Your task to perform on an android device: turn on showing notifications on the lock screen Image 0: 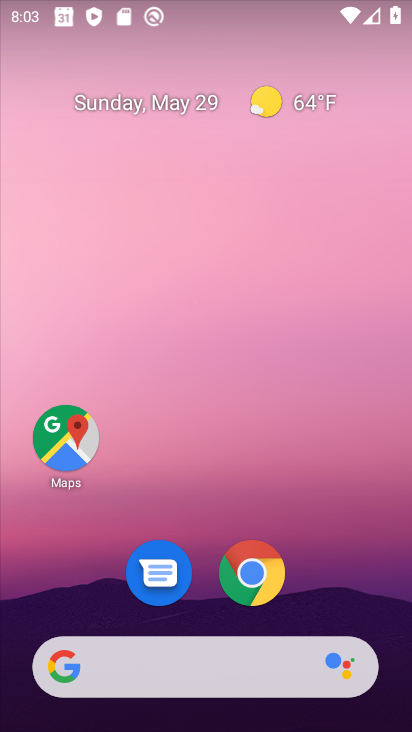
Step 0: drag from (50, 617) to (245, 71)
Your task to perform on an android device: turn on showing notifications on the lock screen Image 1: 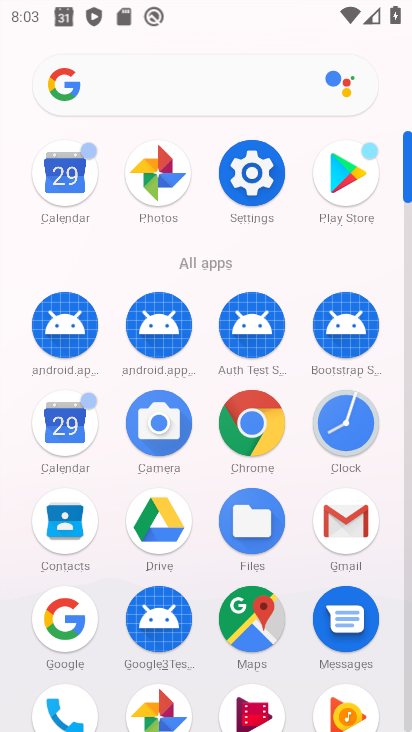
Step 1: drag from (130, 632) to (307, 218)
Your task to perform on an android device: turn on showing notifications on the lock screen Image 2: 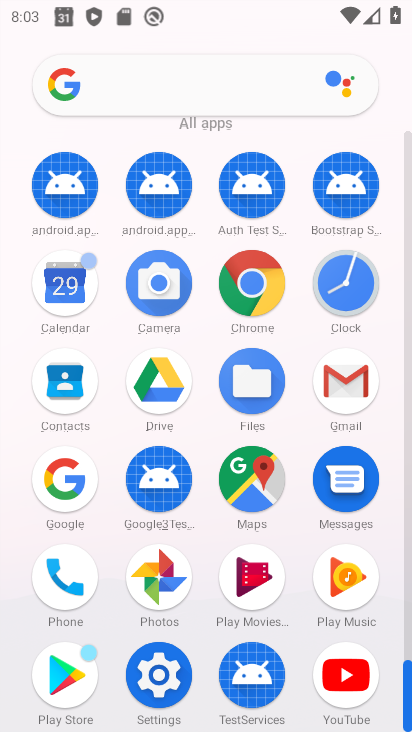
Step 2: click (159, 676)
Your task to perform on an android device: turn on showing notifications on the lock screen Image 3: 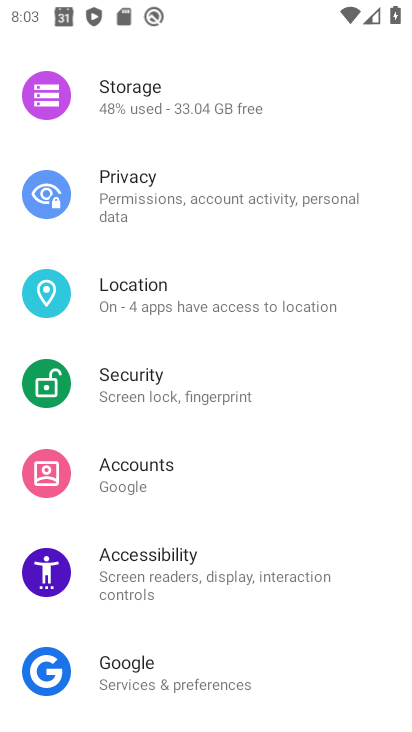
Step 3: drag from (199, 231) to (171, 726)
Your task to perform on an android device: turn on showing notifications on the lock screen Image 4: 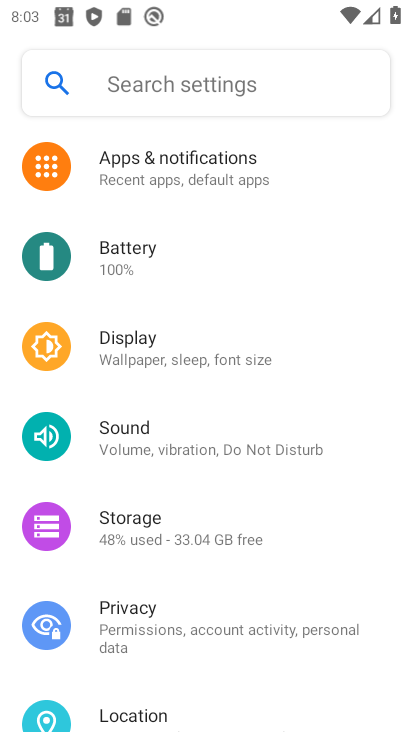
Step 4: click (244, 178)
Your task to perform on an android device: turn on showing notifications on the lock screen Image 5: 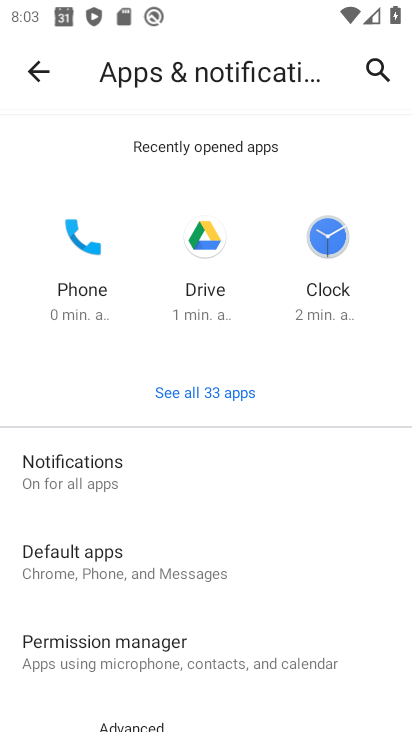
Step 5: click (219, 481)
Your task to perform on an android device: turn on showing notifications on the lock screen Image 6: 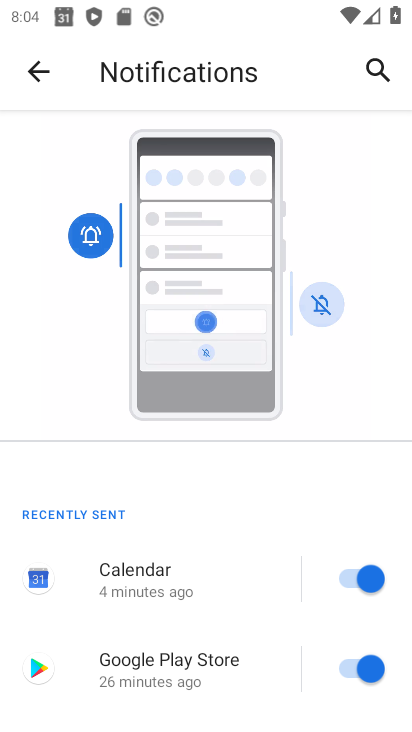
Step 6: drag from (178, 648) to (362, 148)
Your task to perform on an android device: turn on showing notifications on the lock screen Image 7: 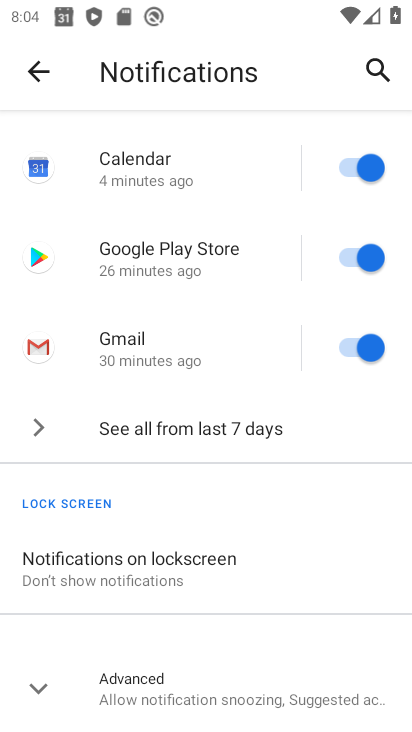
Step 7: click (194, 566)
Your task to perform on an android device: turn on showing notifications on the lock screen Image 8: 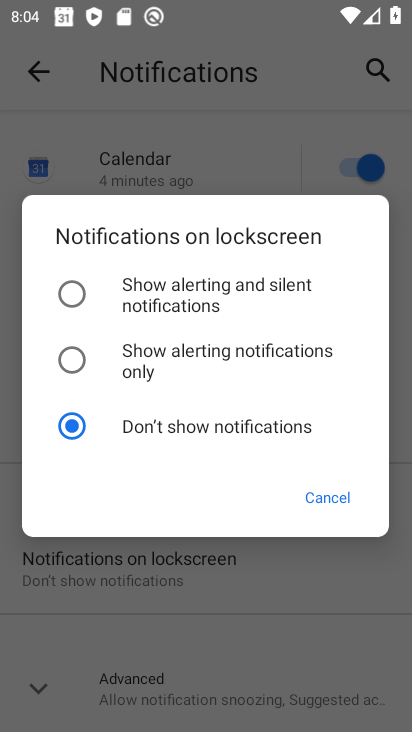
Step 8: click (185, 305)
Your task to perform on an android device: turn on showing notifications on the lock screen Image 9: 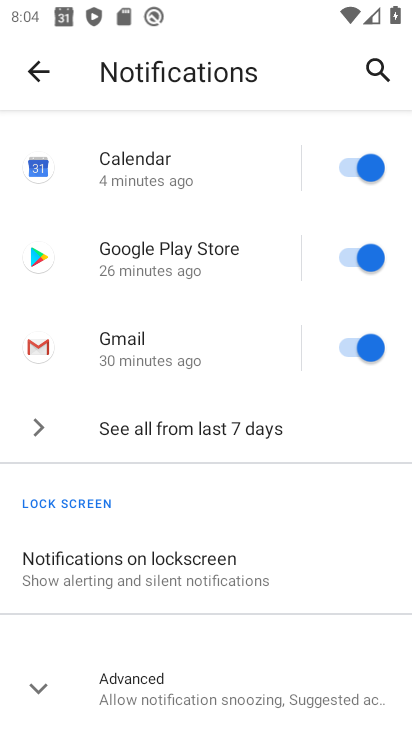
Step 9: task complete